Your task to perform on an android device: Do I have any events tomorrow? Image 0: 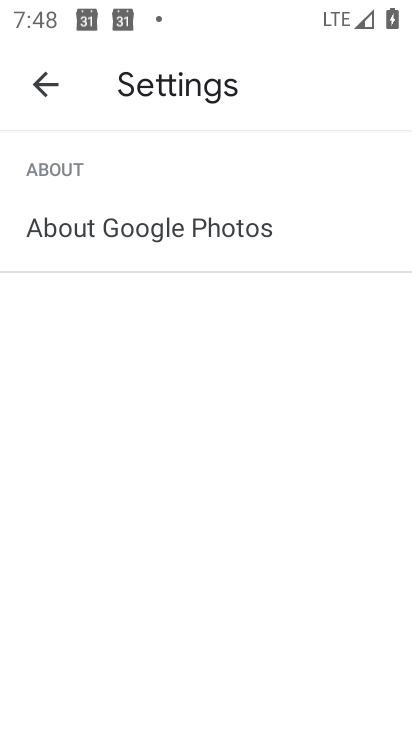
Step 0: press home button
Your task to perform on an android device: Do I have any events tomorrow? Image 1: 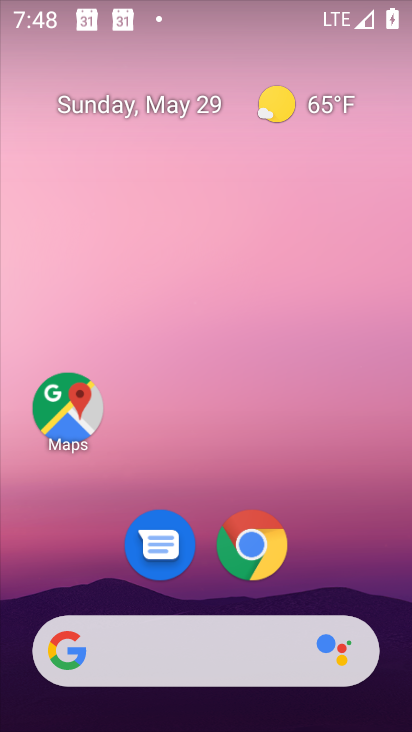
Step 1: drag from (194, 585) to (233, 235)
Your task to perform on an android device: Do I have any events tomorrow? Image 2: 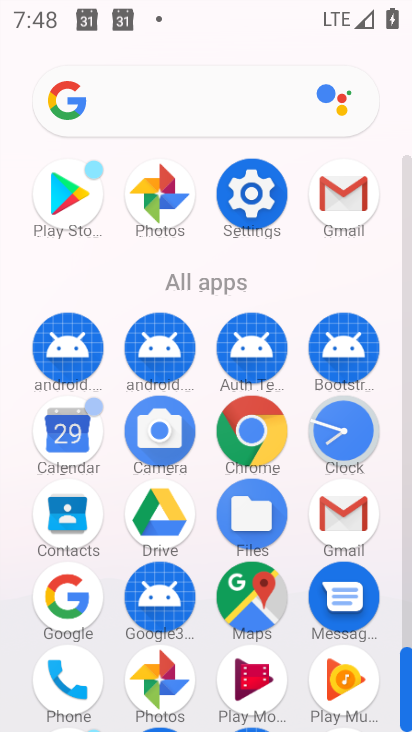
Step 2: click (64, 433)
Your task to perform on an android device: Do I have any events tomorrow? Image 3: 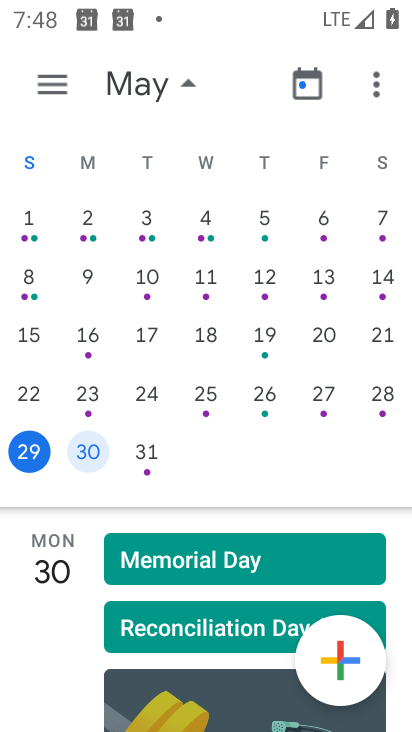
Step 3: click (81, 458)
Your task to perform on an android device: Do I have any events tomorrow? Image 4: 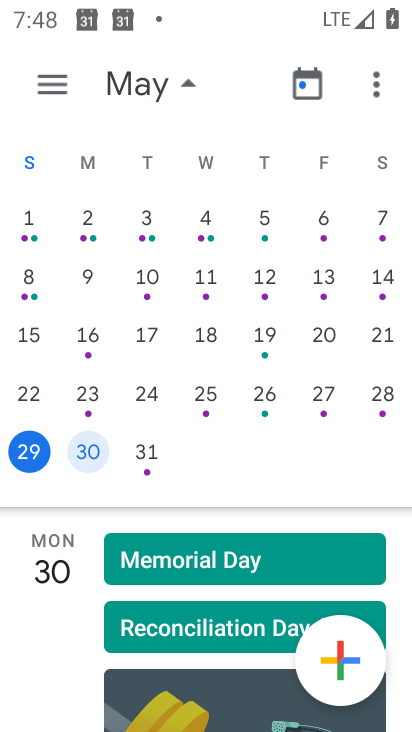
Step 4: click (148, 459)
Your task to perform on an android device: Do I have any events tomorrow? Image 5: 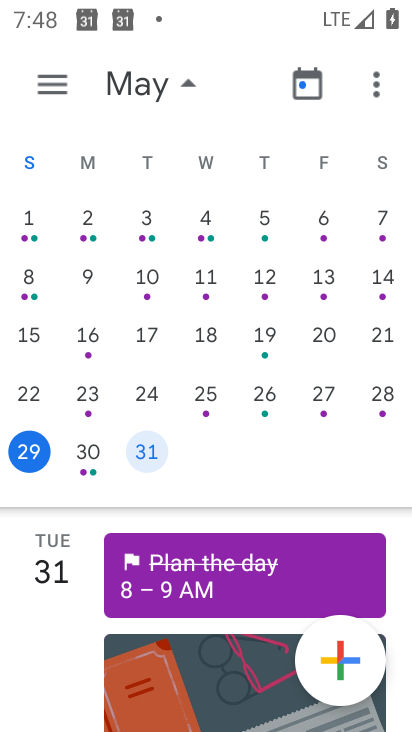
Step 5: task complete